Your task to perform on an android device: turn on data saver in the chrome app Image 0: 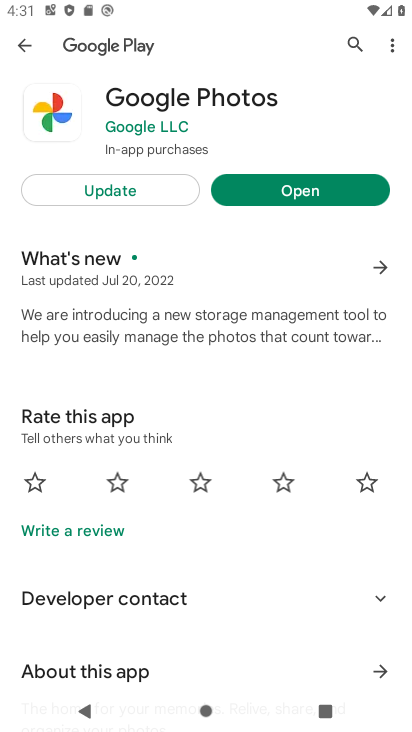
Step 0: press home button
Your task to perform on an android device: turn on data saver in the chrome app Image 1: 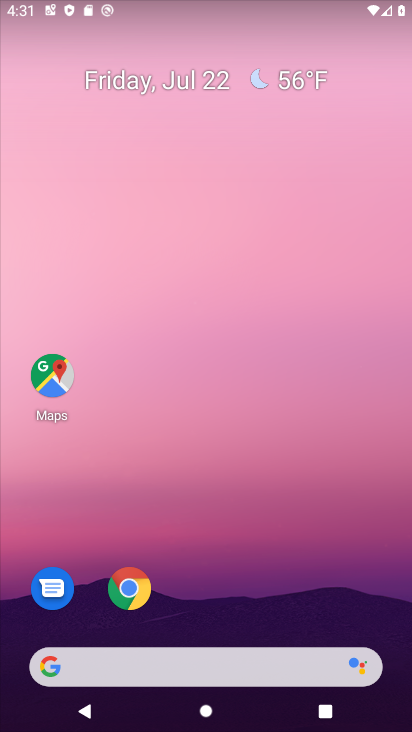
Step 1: click (123, 603)
Your task to perform on an android device: turn on data saver in the chrome app Image 2: 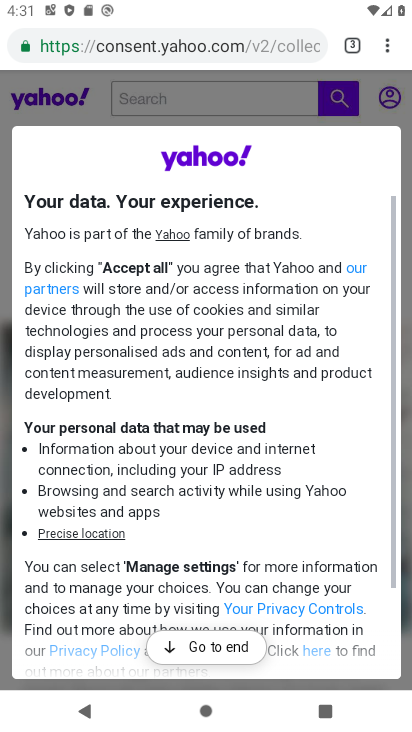
Step 2: click (389, 51)
Your task to perform on an android device: turn on data saver in the chrome app Image 3: 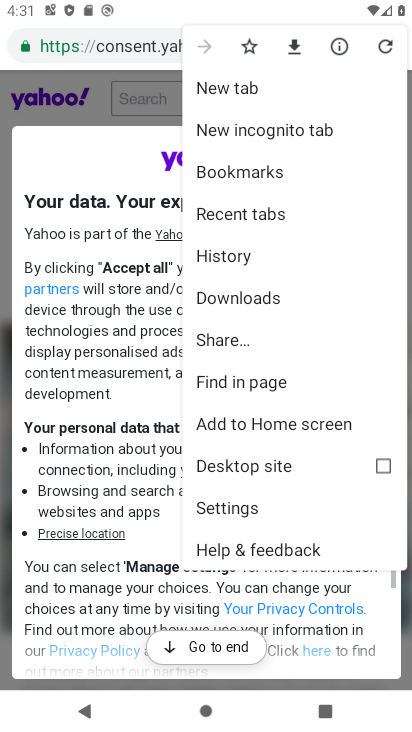
Step 3: click (242, 506)
Your task to perform on an android device: turn on data saver in the chrome app Image 4: 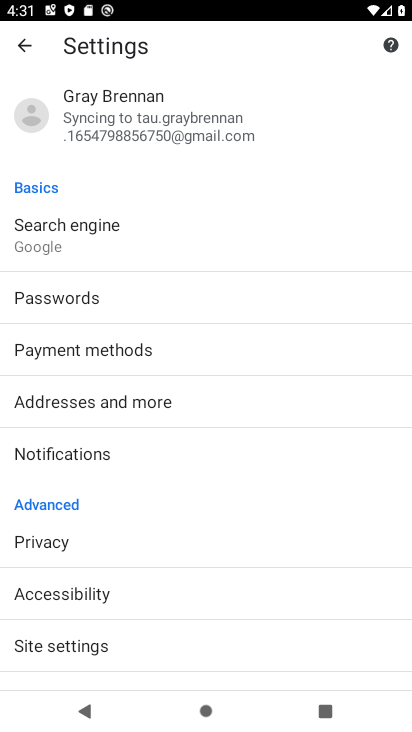
Step 4: drag from (186, 556) to (210, 272)
Your task to perform on an android device: turn on data saver in the chrome app Image 5: 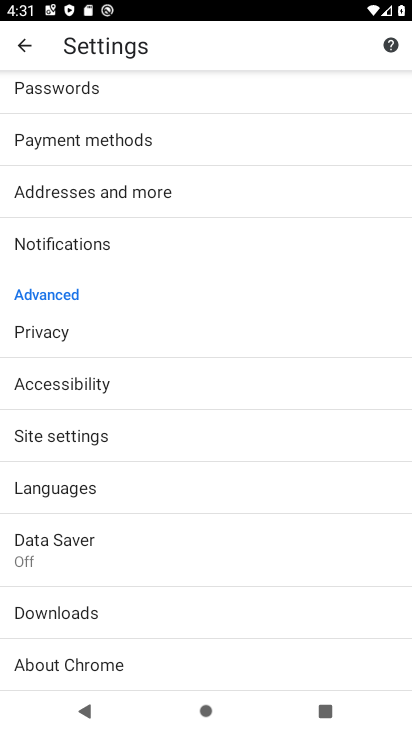
Step 5: click (90, 547)
Your task to perform on an android device: turn on data saver in the chrome app Image 6: 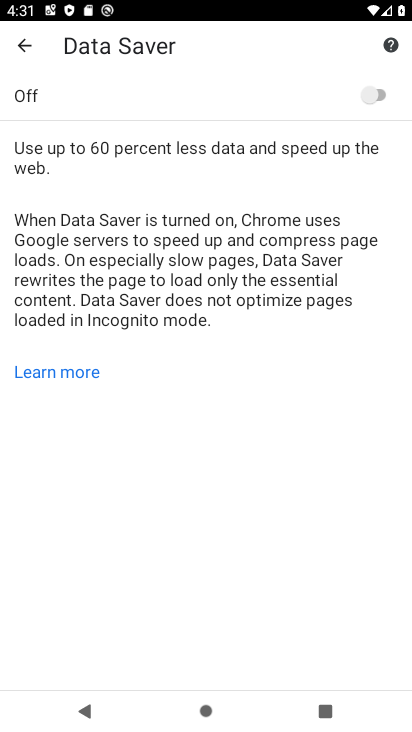
Step 6: click (378, 107)
Your task to perform on an android device: turn on data saver in the chrome app Image 7: 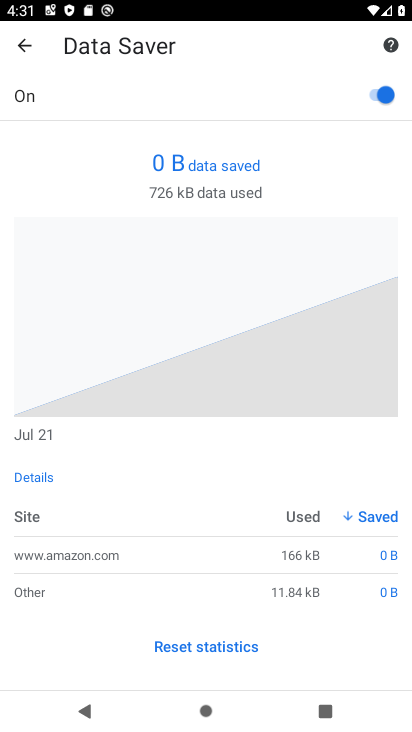
Step 7: task complete